Your task to perform on an android device: Open ESPN.com Image 0: 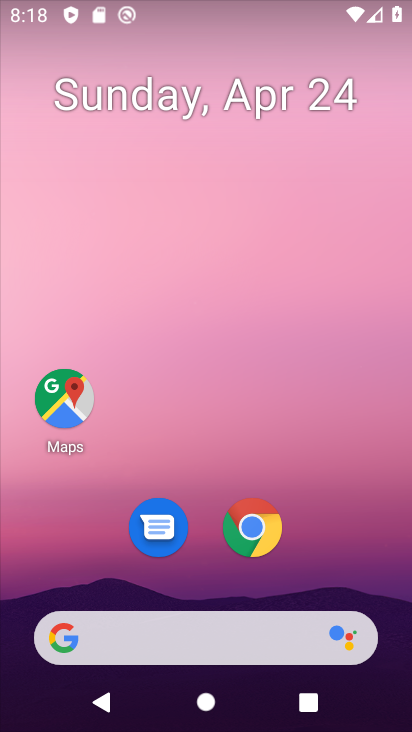
Step 0: click (262, 515)
Your task to perform on an android device: Open ESPN.com Image 1: 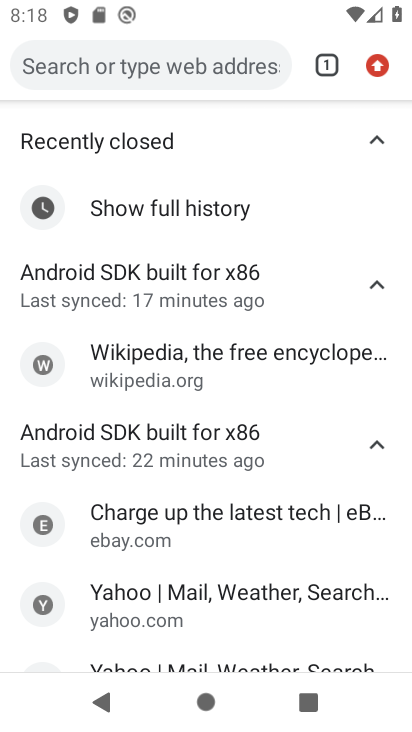
Step 1: click (325, 63)
Your task to perform on an android device: Open ESPN.com Image 2: 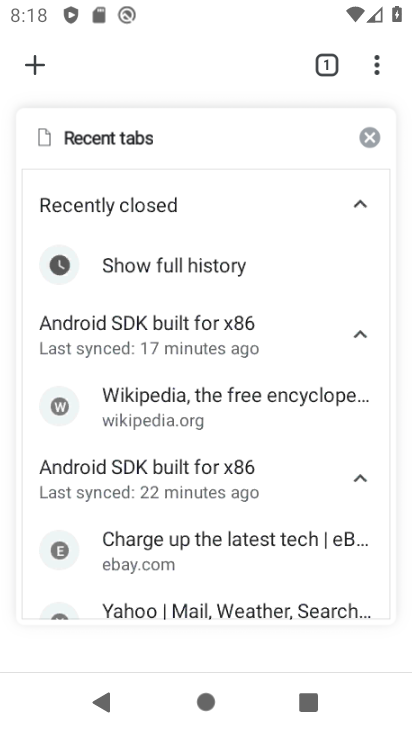
Step 2: click (34, 57)
Your task to perform on an android device: Open ESPN.com Image 3: 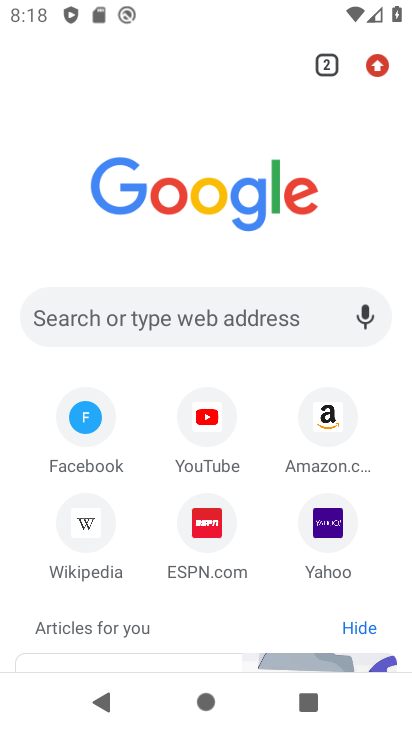
Step 3: click (199, 522)
Your task to perform on an android device: Open ESPN.com Image 4: 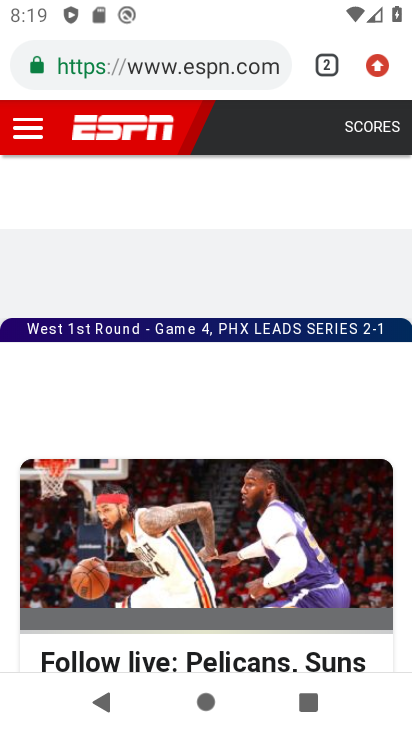
Step 4: task complete